Your task to perform on an android device: Open sound settings Image 0: 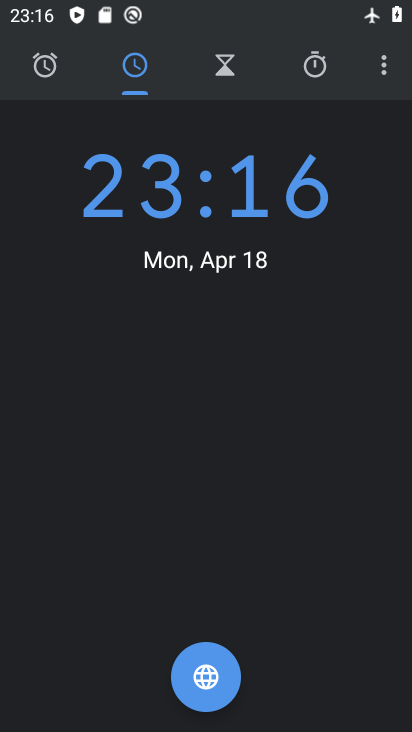
Step 0: press home button
Your task to perform on an android device: Open sound settings Image 1: 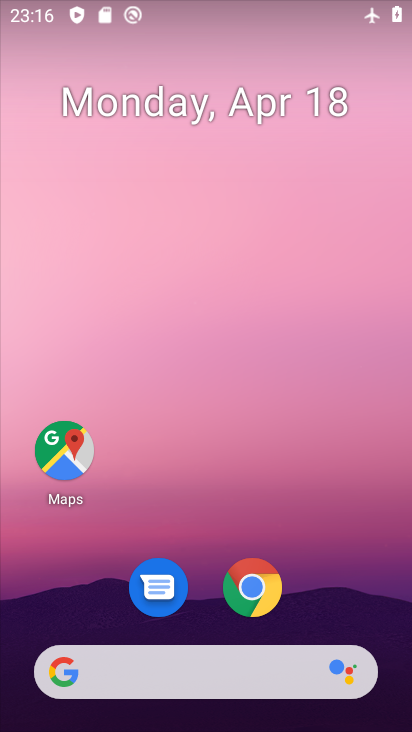
Step 1: drag from (350, 585) to (353, 78)
Your task to perform on an android device: Open sound settings Image 2: 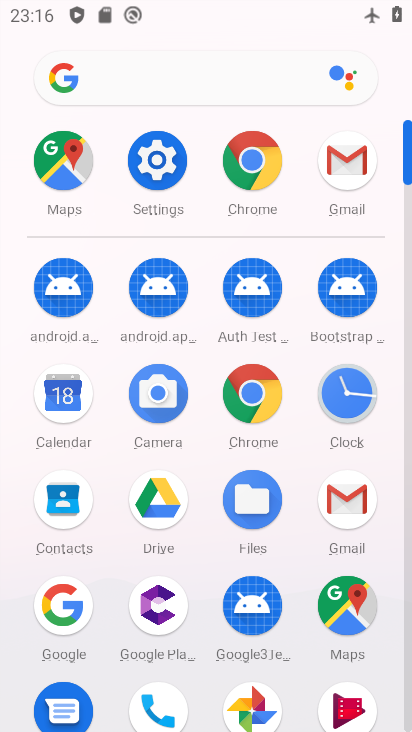
Step 2: click (138, 163)
Your task to perform on an android device: Open sound settings Image 3: 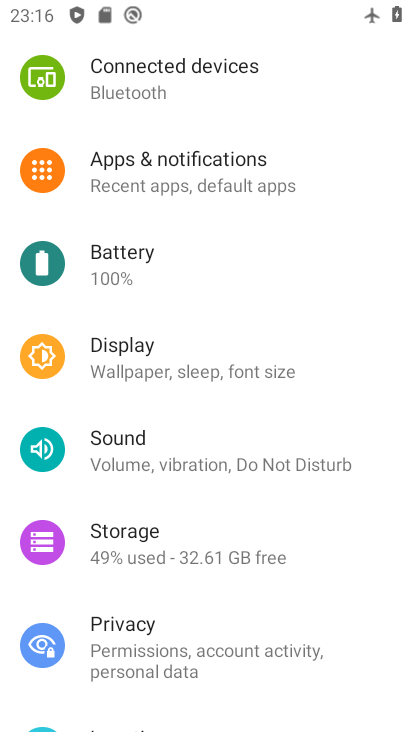
Step 3: click (148, 462)
Your task to perform on an android device: Open sound settings Image 4: 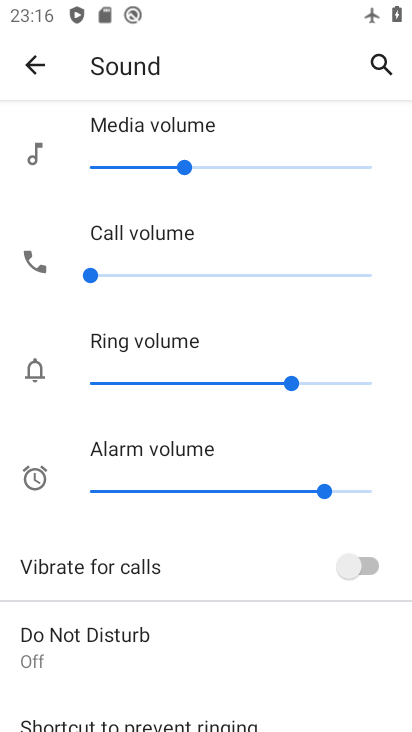
Step 4: task complete